Your task to perform on an android device: open chrome privacy settings Image 0: 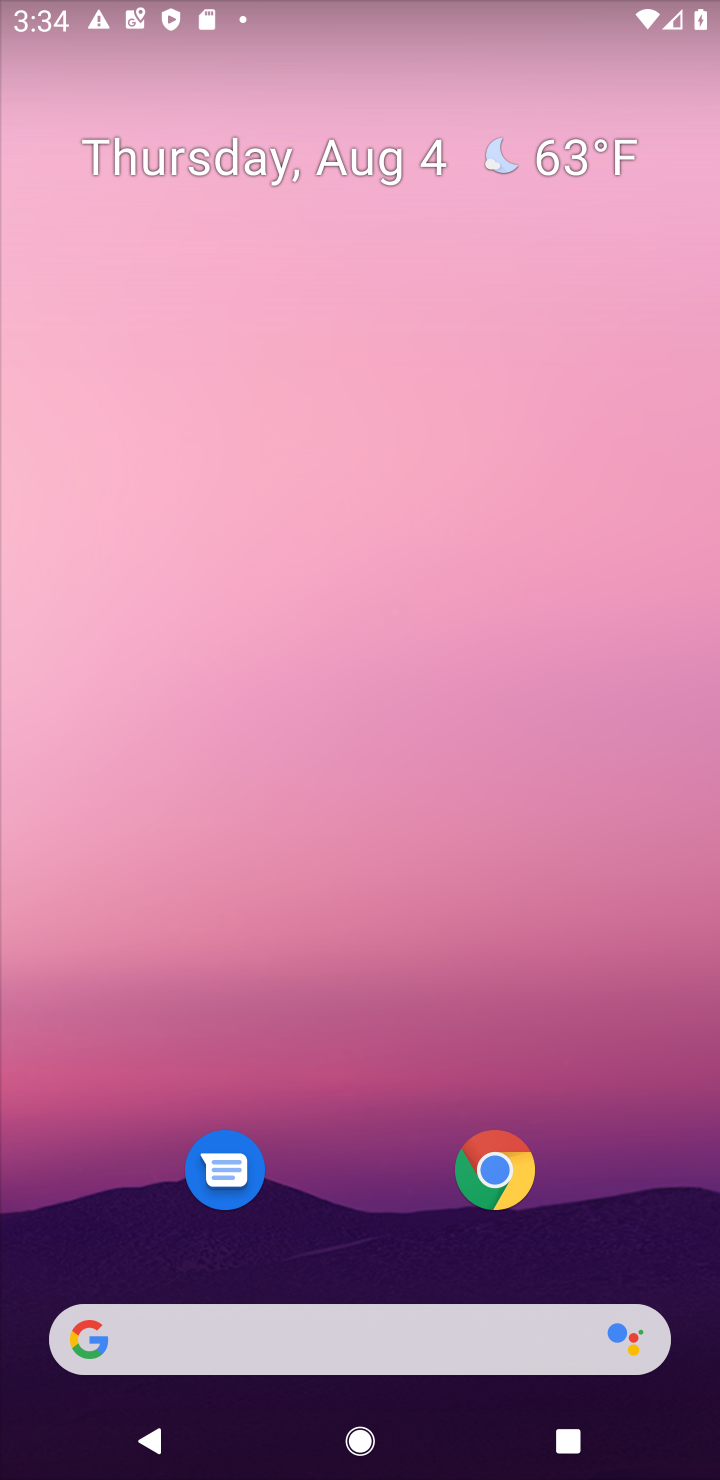
Step 0: click (494, 1179)
Your task to perform on an android device: open chrome privacy settings Image 1: 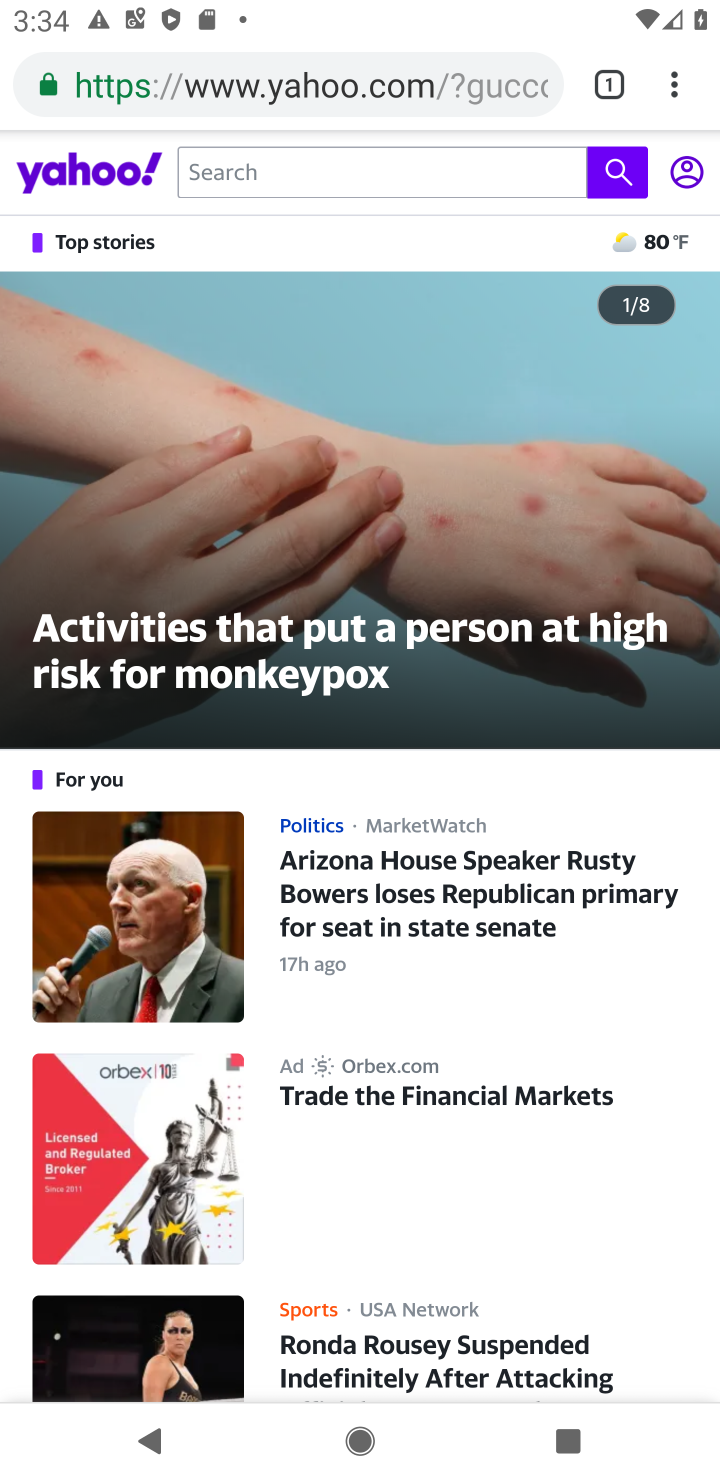
Step 1: click (657, 91)
Your task to perform on an android device: open chrome privacy settings Image 2: 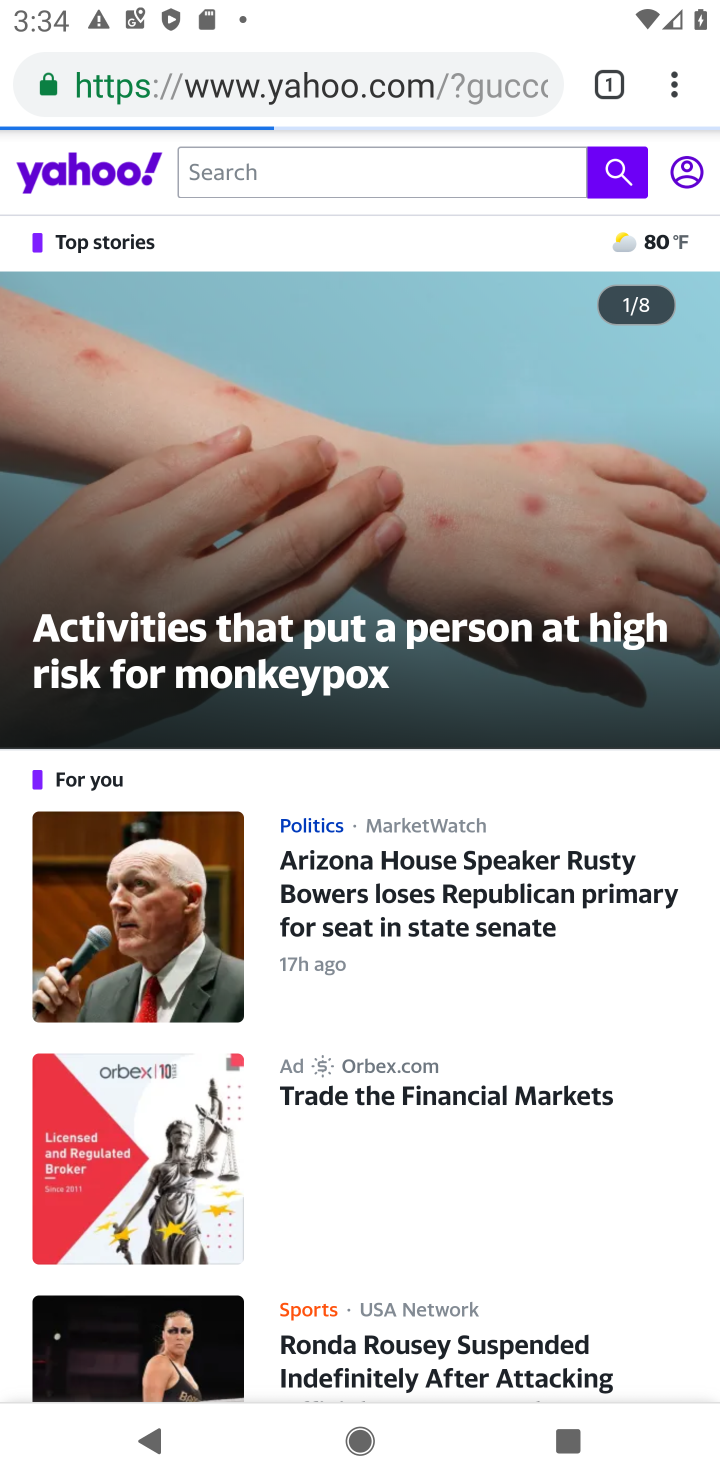
Step 2: click (657, 91)
Your task to perform on an android device: open chrome privacy settings Image 3: 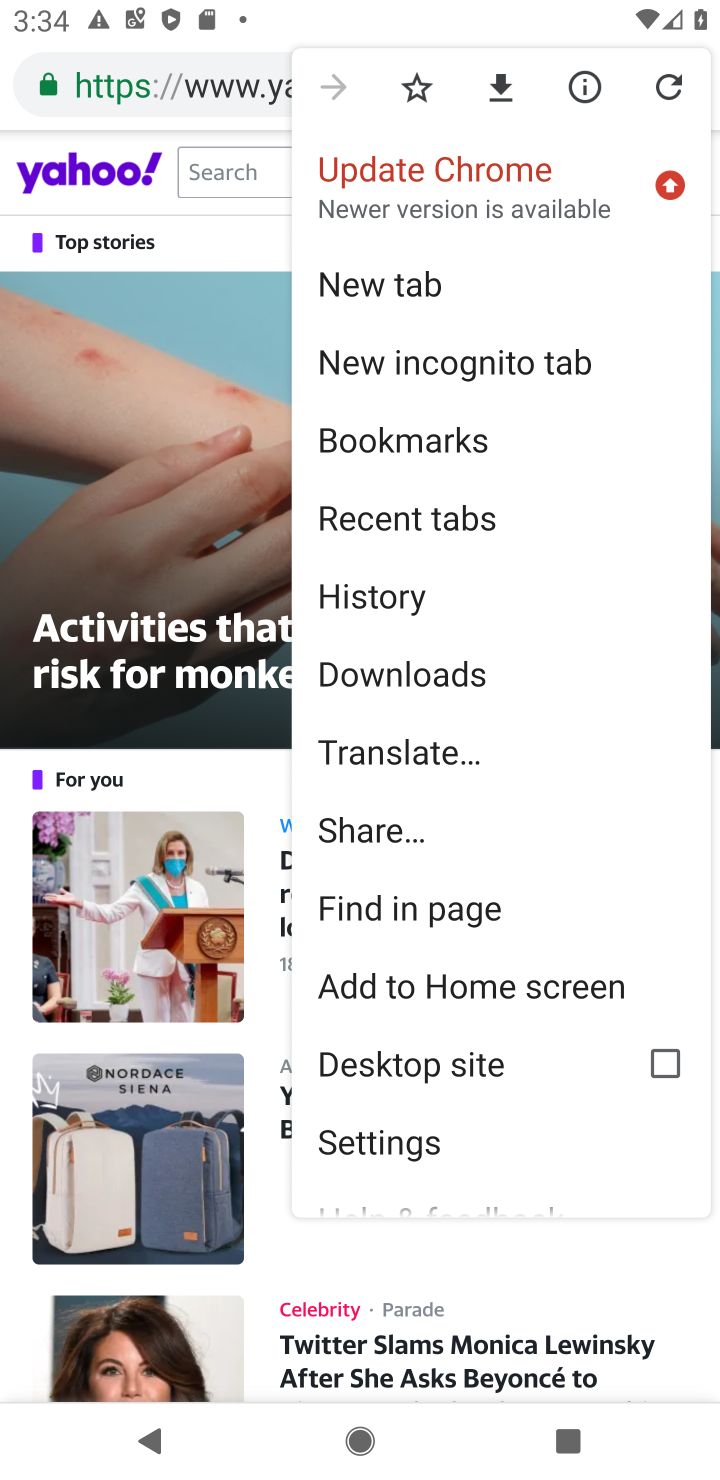
Step 3: click (380, 1126)
Your task to perform on an android device: open chrome privacy settings Image 4: 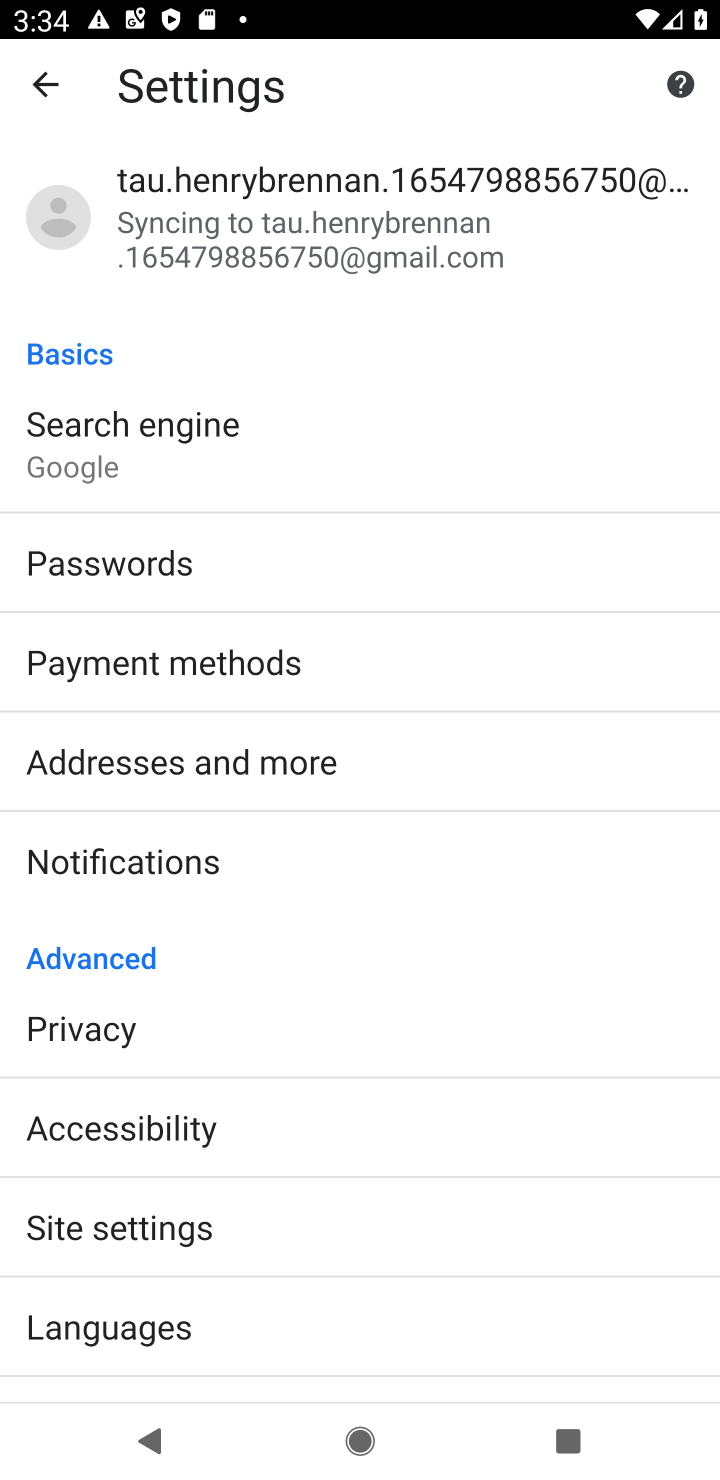
Step 4: click (78, 1014)
Your task to perform on an android device: open chrome privacy settings Image 5: 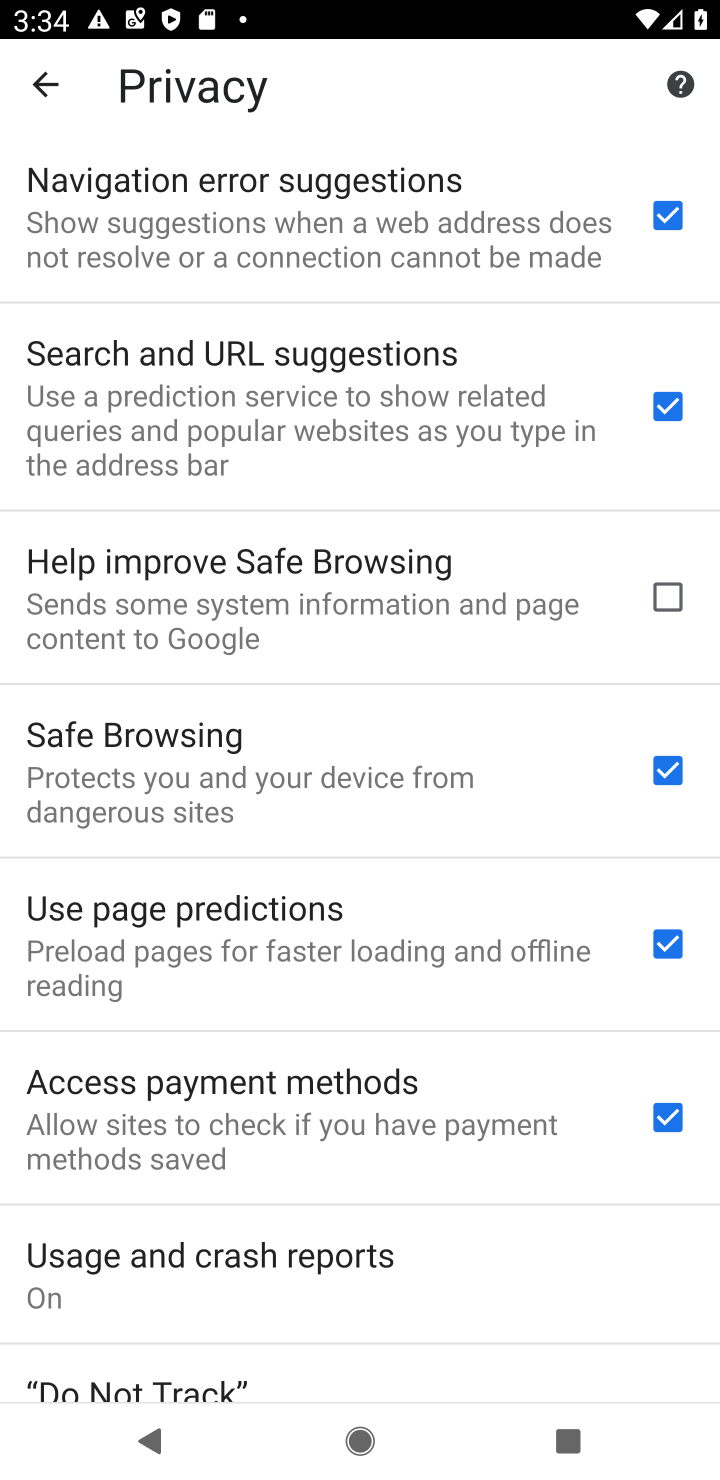
Step 5: task complete